Your task to perform on an android device: Add "usb-c to usb-a" to the cart on bestbuy Image 0: 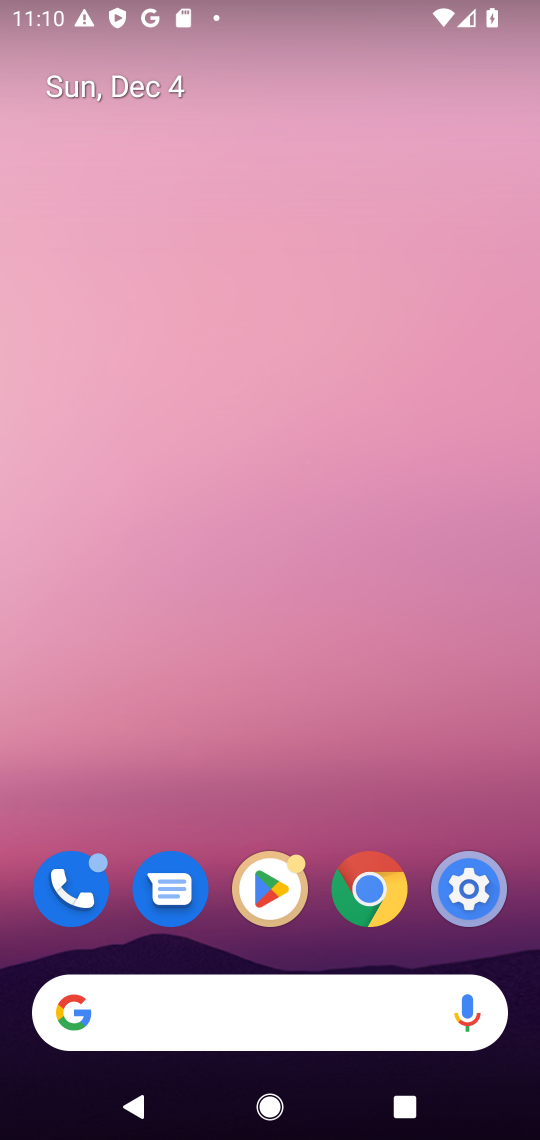
Step 0: click (379, 887)
Your task to perform on an android device: Add "usb-c to usb-a" to the cart on bestbuy Image 1: 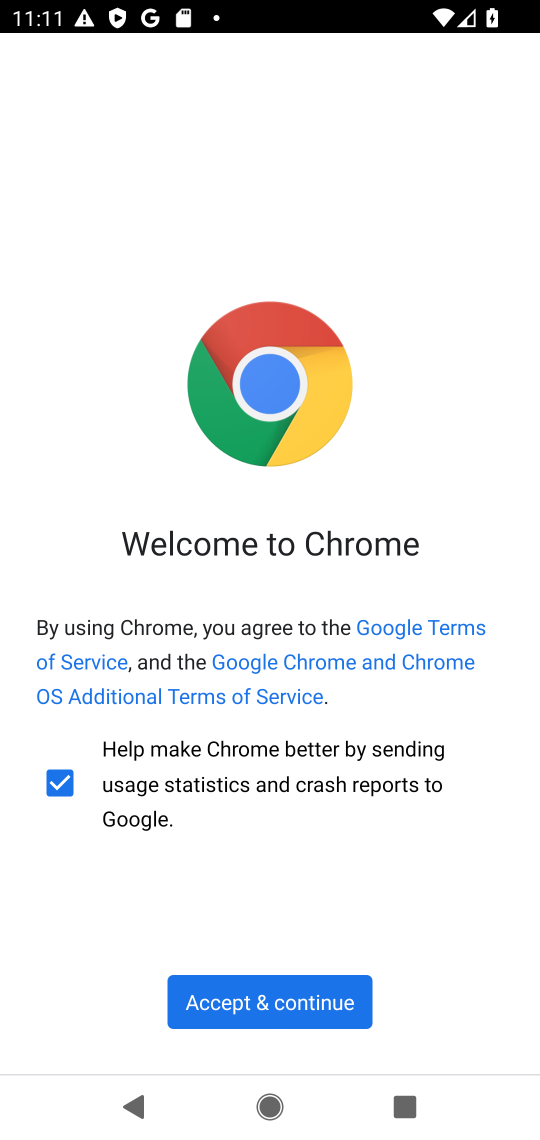
Step 1: click (272, 1006)
Your task to perform on an android device: Add "usb-c to usb-a" to the cart on bestbuy Image 2: 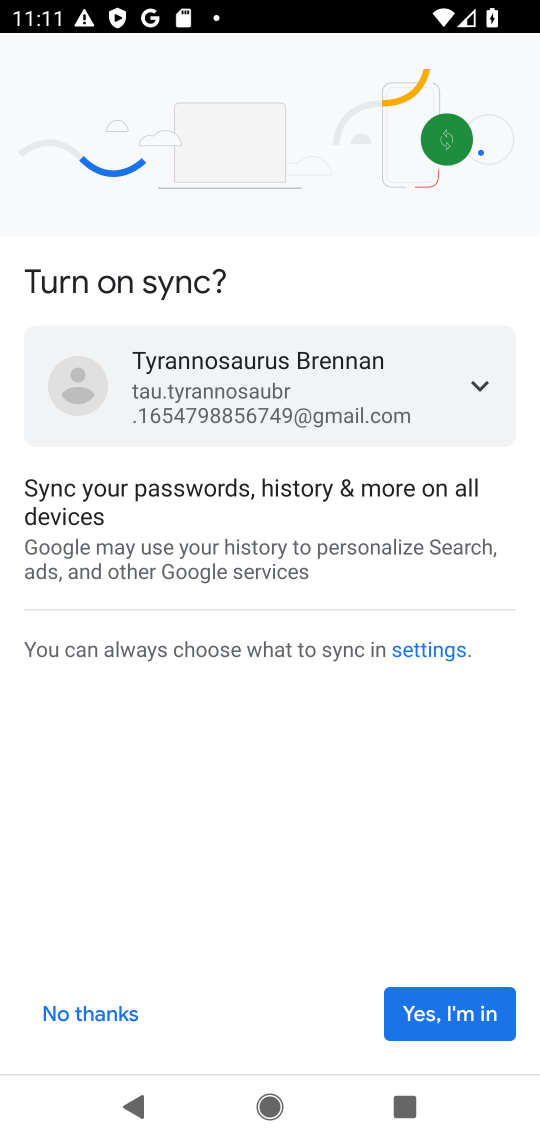
Step 2: click (447, 1015)
Your task to perform on an android device: Add "usb-c to usb-a" to the cart on bestbuy Image 3: 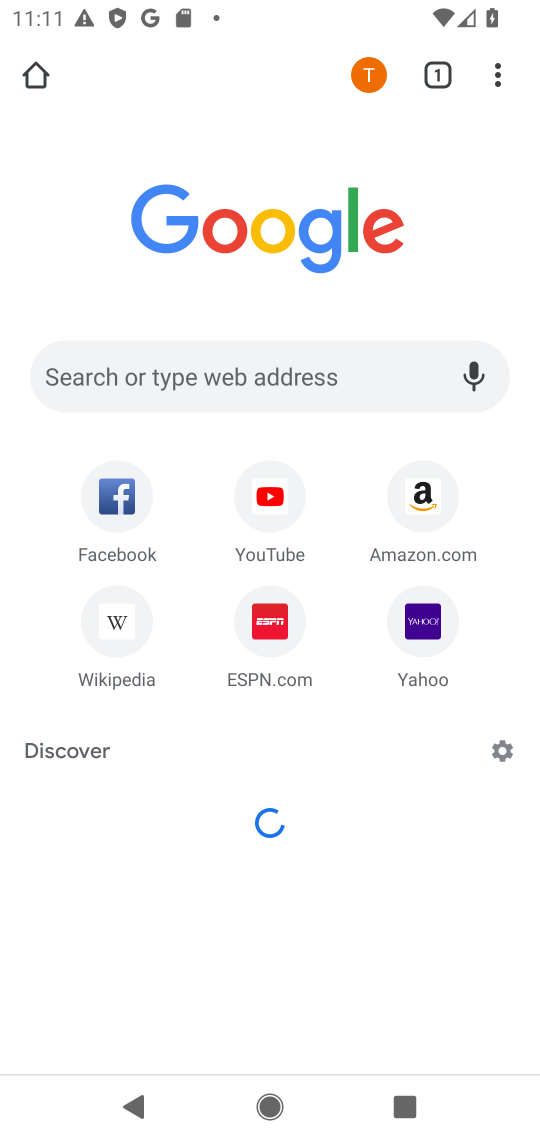
Step 3: click (346, 378)
Your task to perform on an android device: Add "usb-c to usb-a" to the cart on bestbuy Image 4: 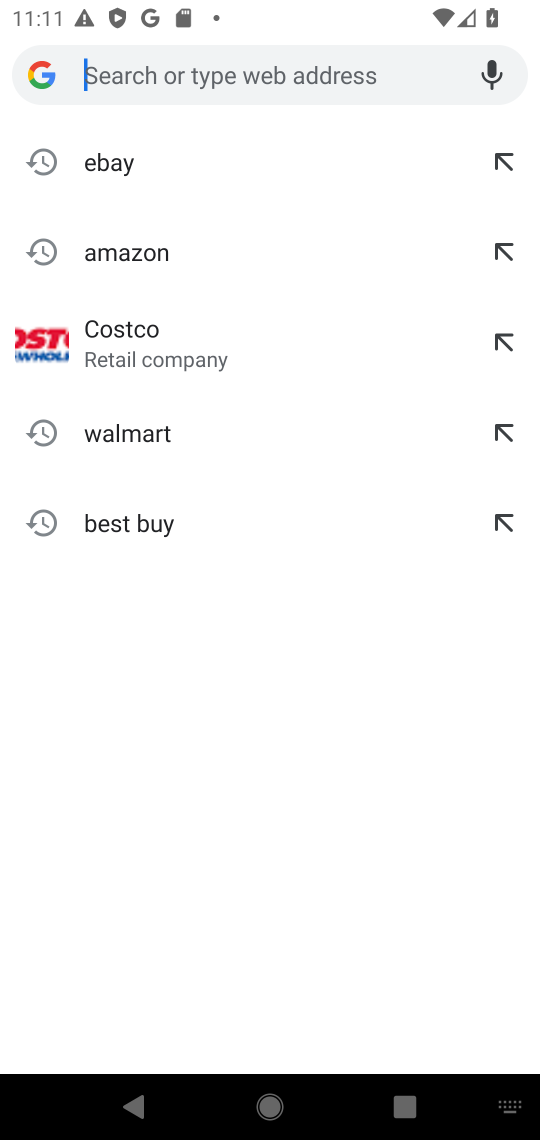
Step 4: type "bestbuy"
Your task to perform on an android device: Add "usb-c to usb-a" to the cart on bestbuy Image 5: 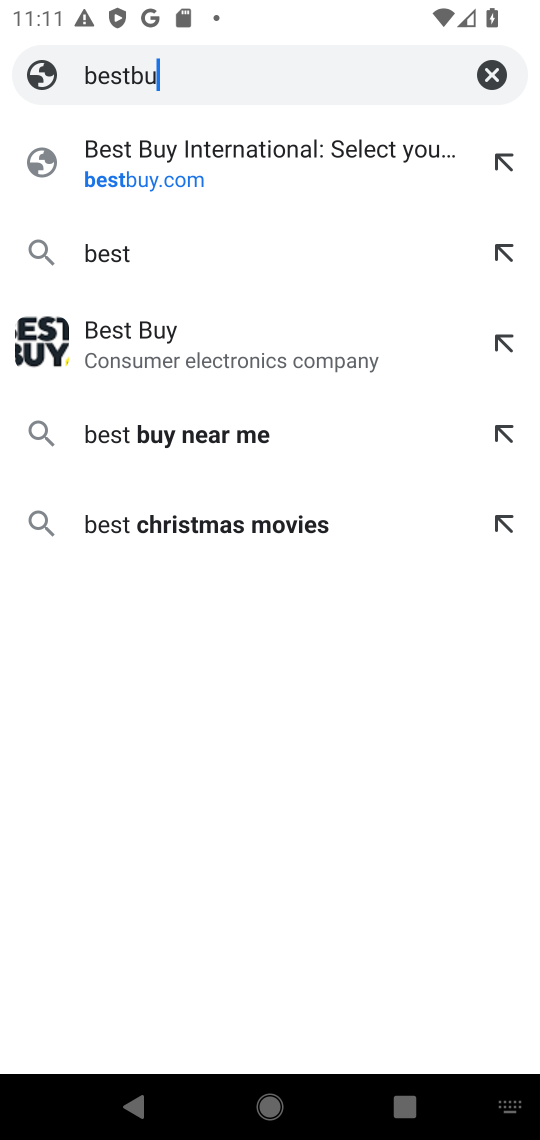
Step 5: press enter
Your task to perform on an android device: Add "usb-c to usb-a" to the cart on bestbuy Image 6: 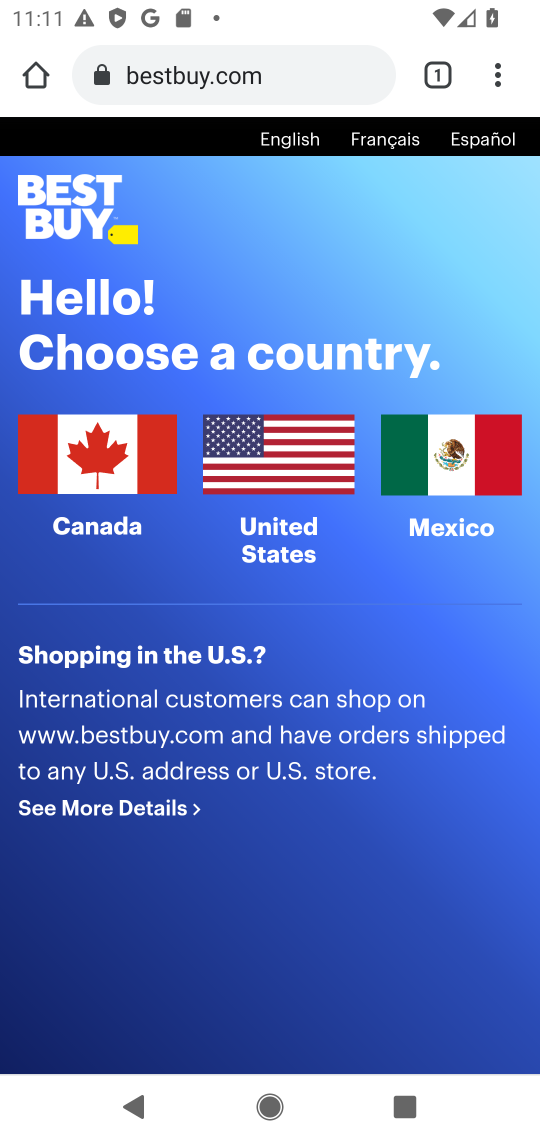
Step 6: click (271, 472)
Your task to perform on an android device: Add "usb-c to usb-a" to the cart on bestbuy Image 7: 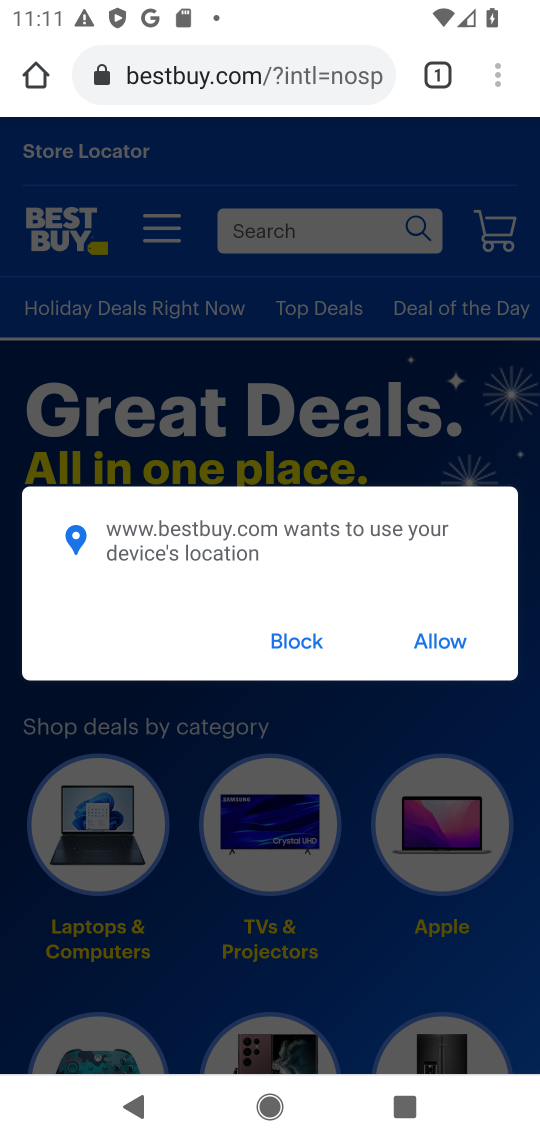
Step 7: click (291, 639)
Your task to perform on an android device: Add "usb-c to usb-a" to the cart on bestbuy Image 8: 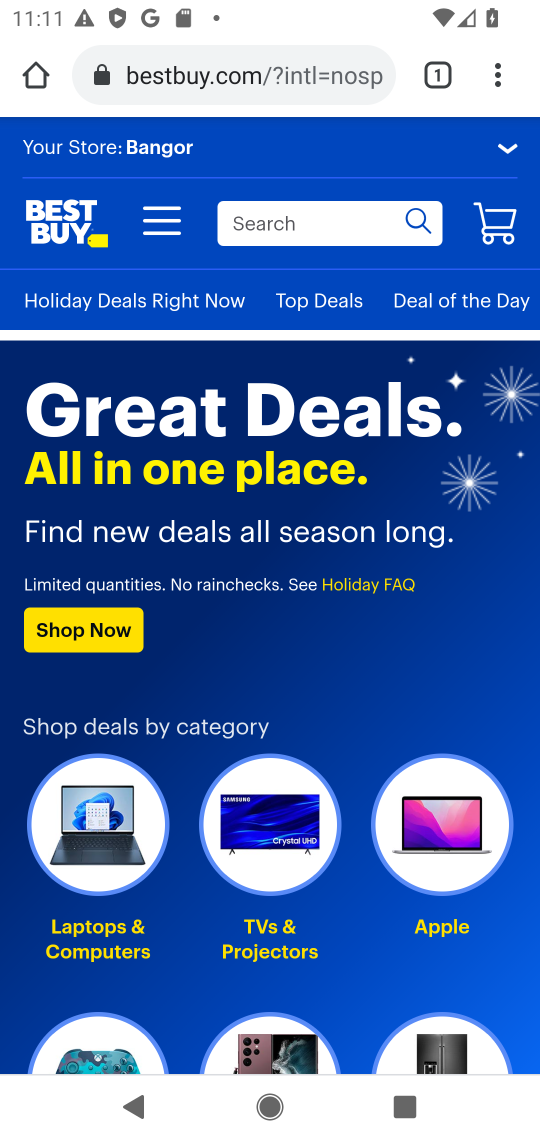
Step 8: click (393, 228)
Your task to perform on an android device: Add "usb-c to usb-a" to the cart on bestbuy Image 9: 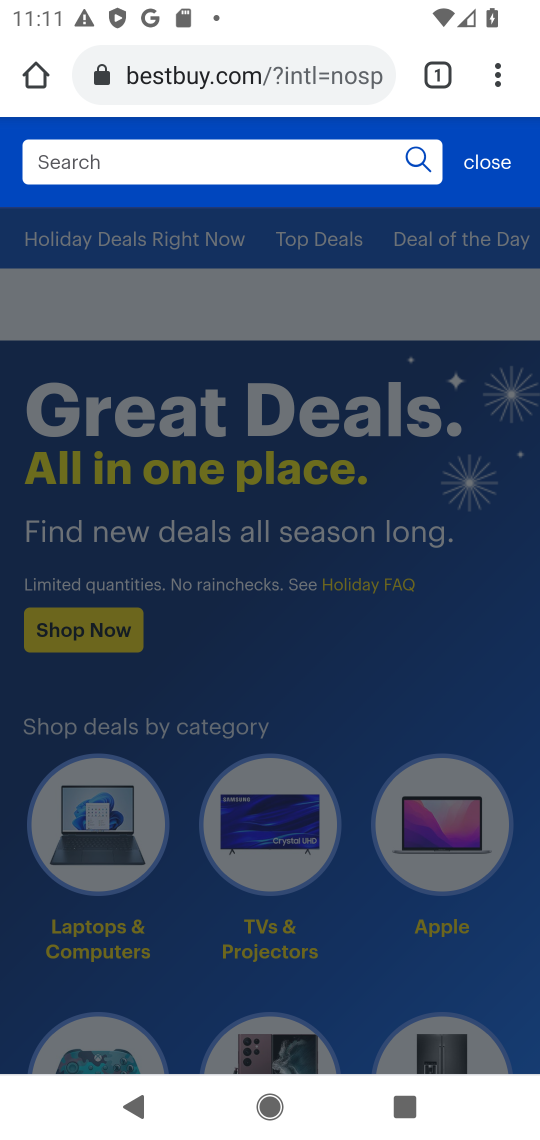
Step 9: type "usb-c to usb-a"
Your task to perform on an android device: Add "usb-c to usb-a" to the cart on bestbuy Image 10: 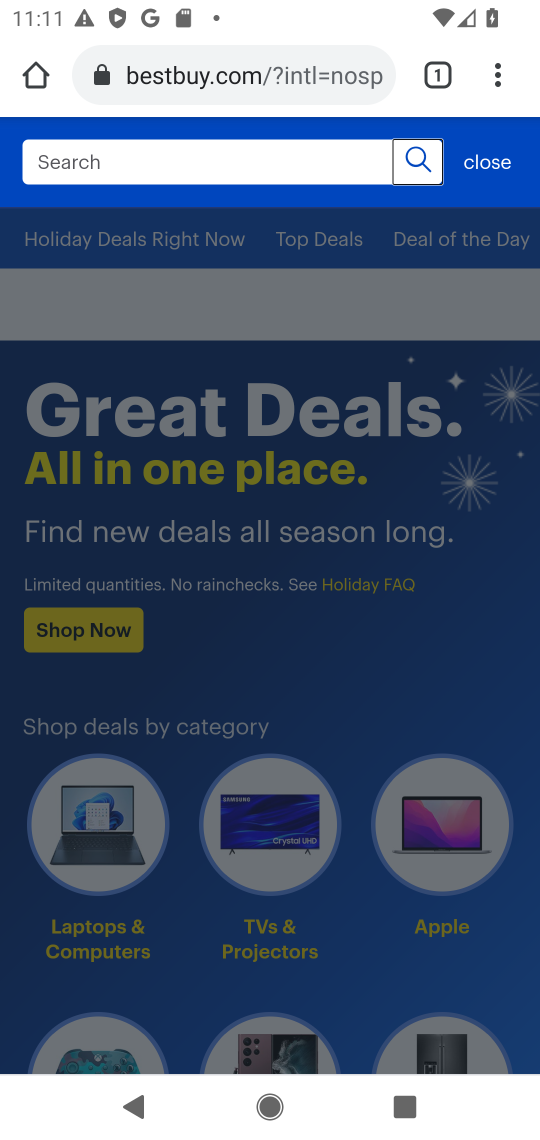
Step 10: press enter
Your task to perform on an android device: Add "usb-c to usb-a" to the cart on bestbuy Image 11: 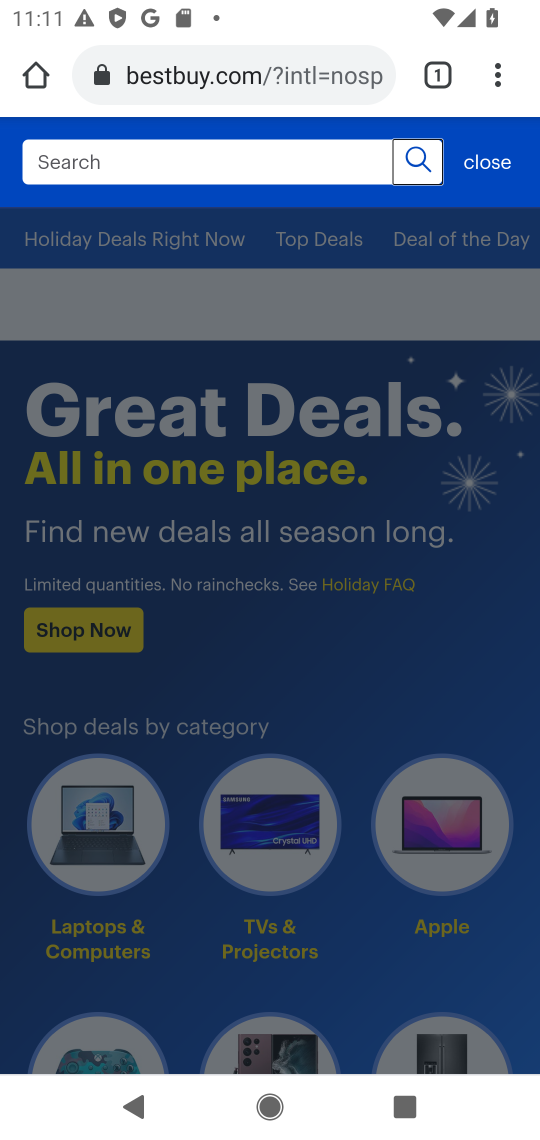
Step 11: click (352, 145)
Your task to perform on an android device: Add "usb-c to usb-a" to the cart on bestbuy Image 12: 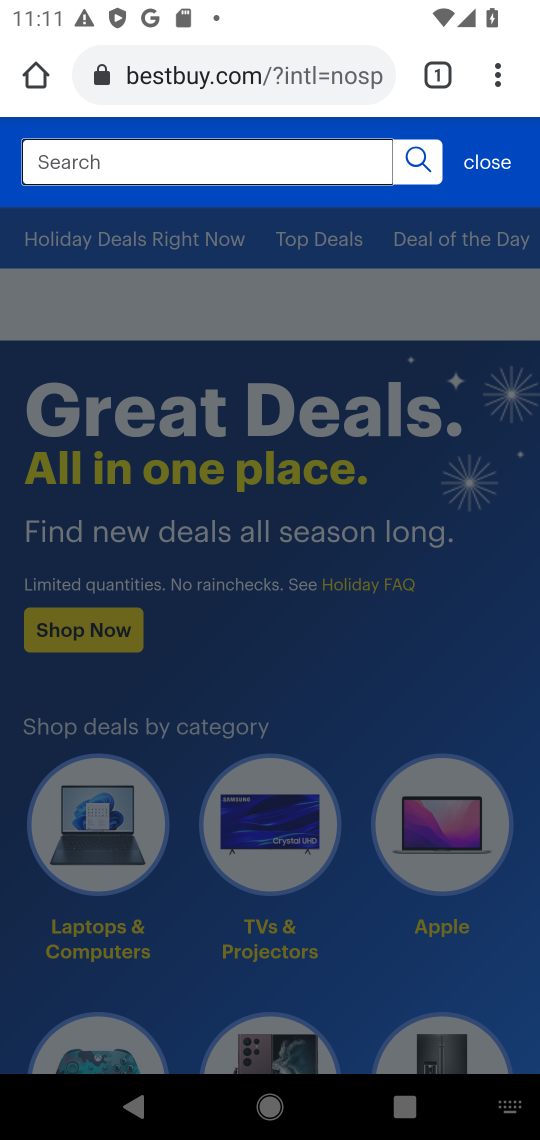
Step 12: press enter
Your task to perform on an android device: Add "usb-c to usb-a" to the cart on bestbuy Image 13: 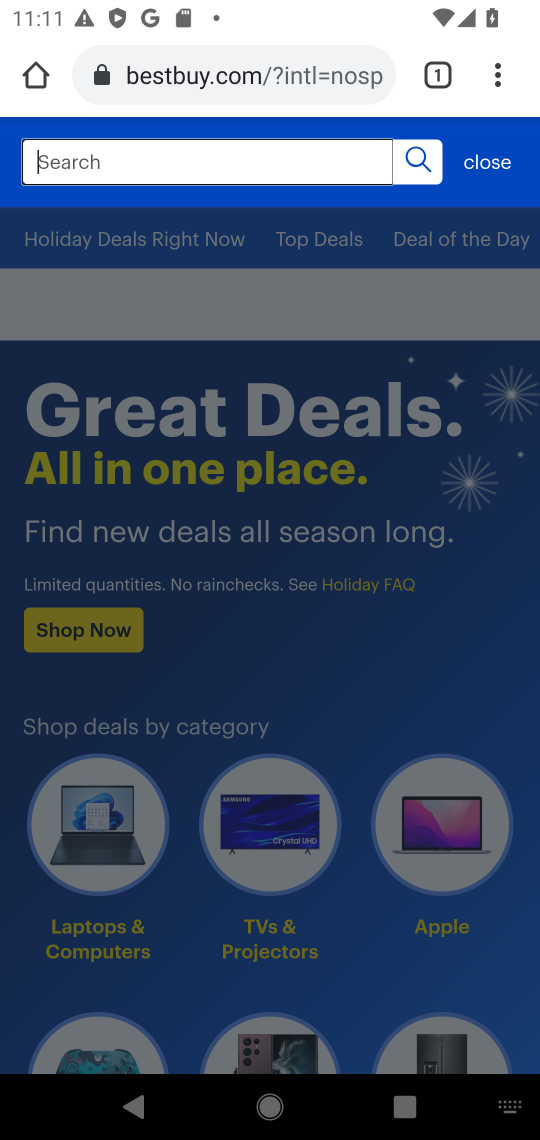
Step 13: type "usb-c to usb-a"
Your task to perform on an android device: Add "usb-c to usb-a" to the cart on bestbuy Image 14: 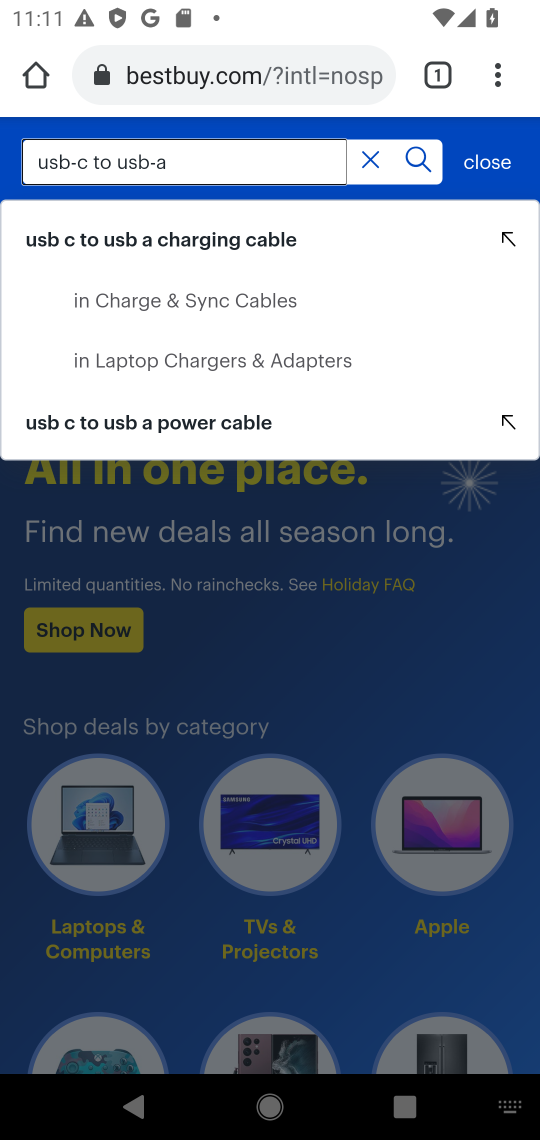
Step 14: click (182, 234)
Your task to perform on an android device: Add "usb-c to usb-a" to the cart on bestbuy Image 15: 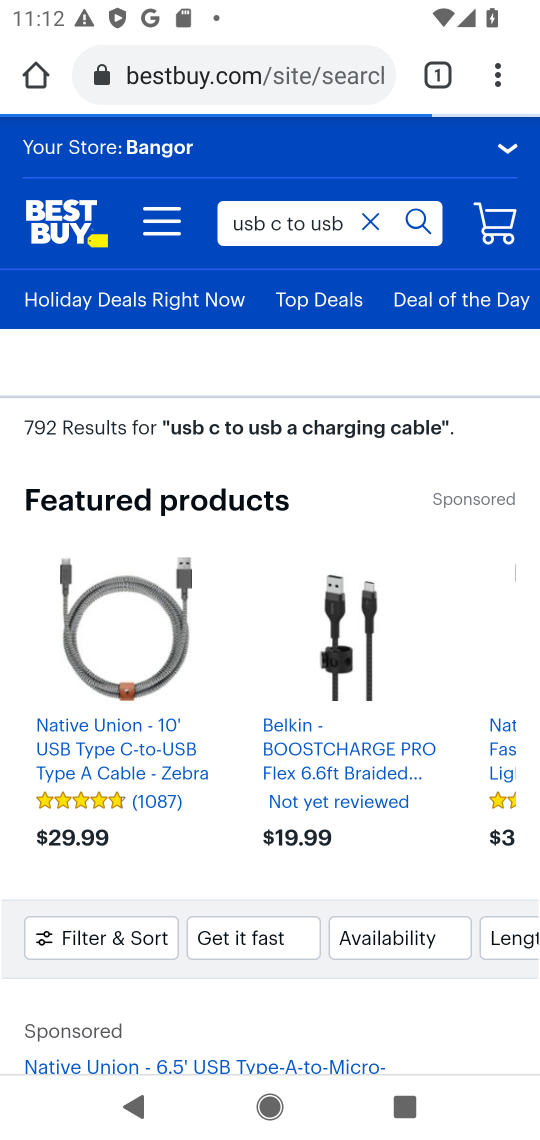
Step 15: drag from (405, 744) to (390, 275)
Your task to perform on an android device: Add "usb-c to usb-a" to the cart on bestbuy Image 16: 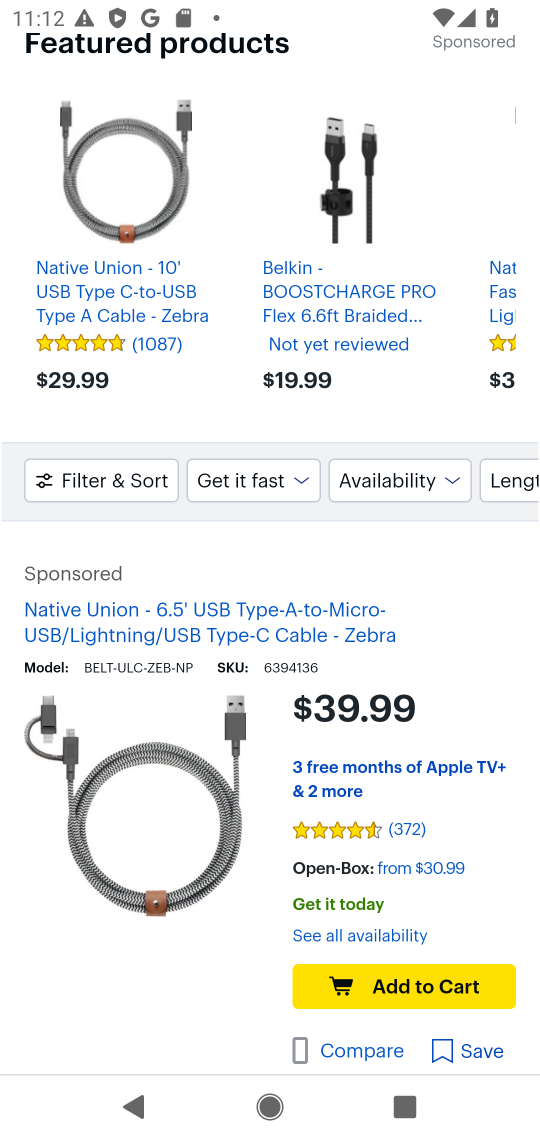
Step 16: drag from (218, 862) to (313, 465)
Your task to perform on an android device: Add "usb-c to usb-a" to the cart on bestbuy Image 17: 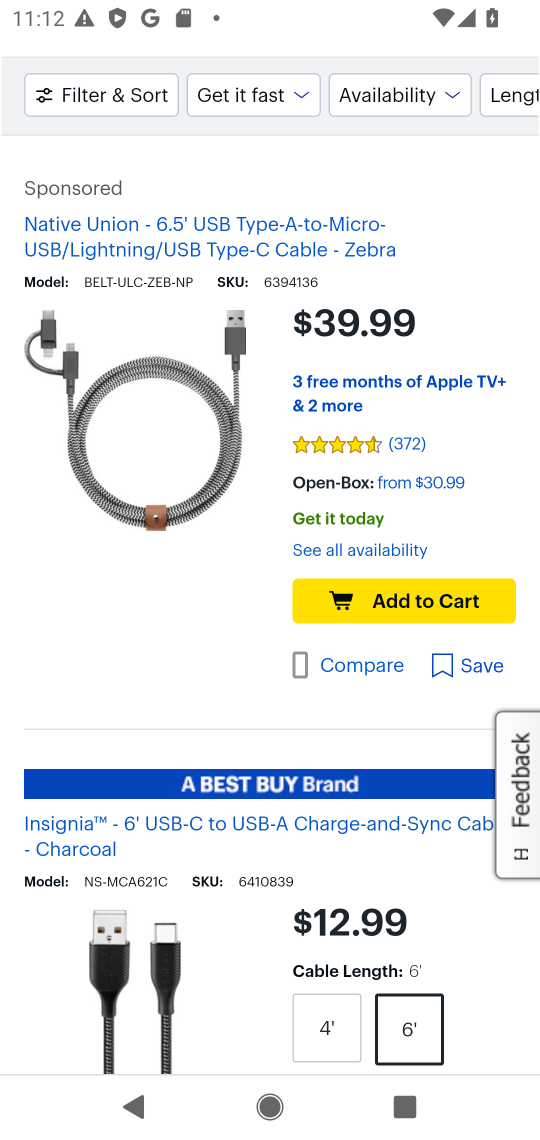
Step 17: click (160, 998)
Your task to perform on an android device: Add "usb-c to usb-a" to the cart on bestbuy Image 18: 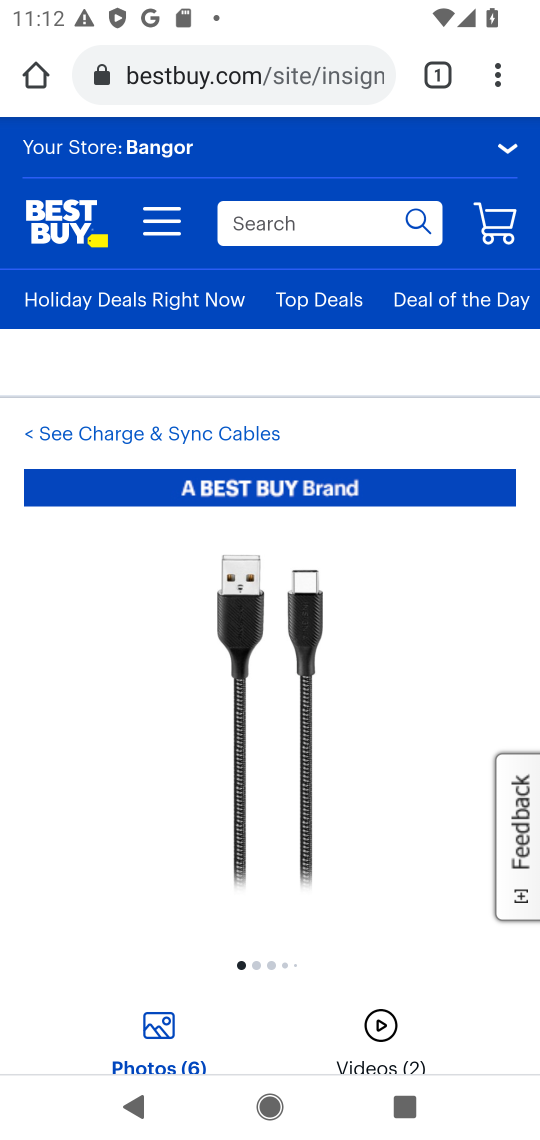
Step 18: drag from (363, 865) to (274, 181)
Your task to perform on an android device: Add "usb-c to usb-a" to the cart on bestbuy Image 19: 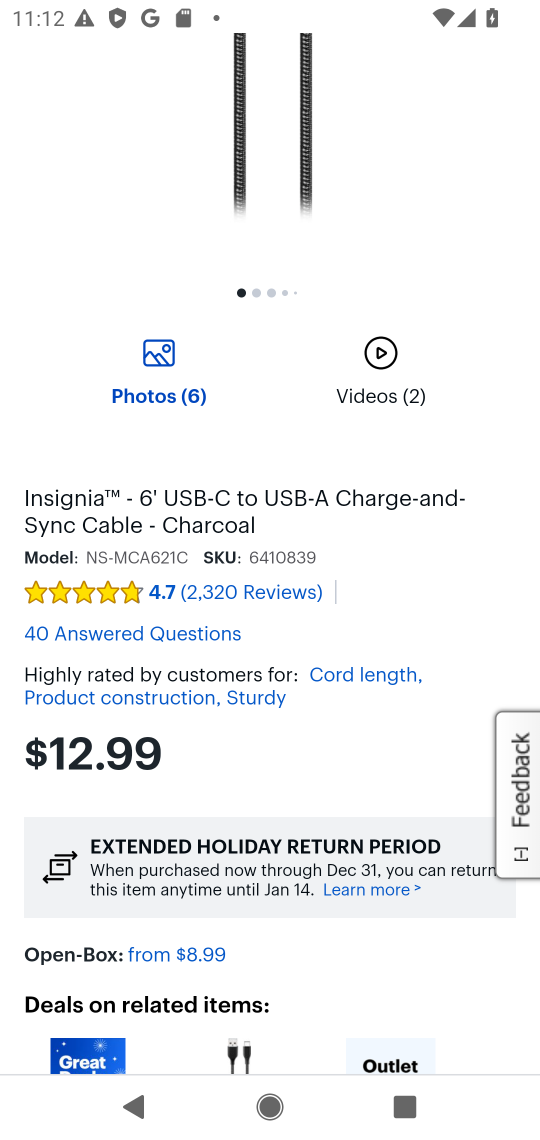
Step 19: drag from (368, 735) to (293, 202)
Your task to perform on an android device: Add "usb-c to usb-a" to the cart on bestbuy Image 20: 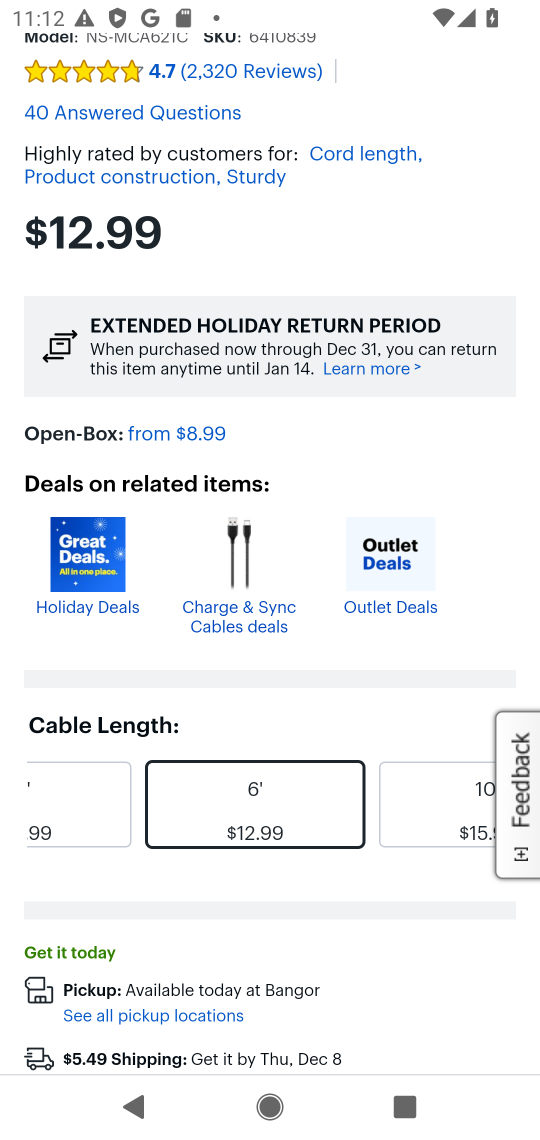
Step 20: drag from (351, 933) to (263, 344)
Your task to perform on an android device: Add "usb-c to usb-a" to the cart on bestbuy Image 21: 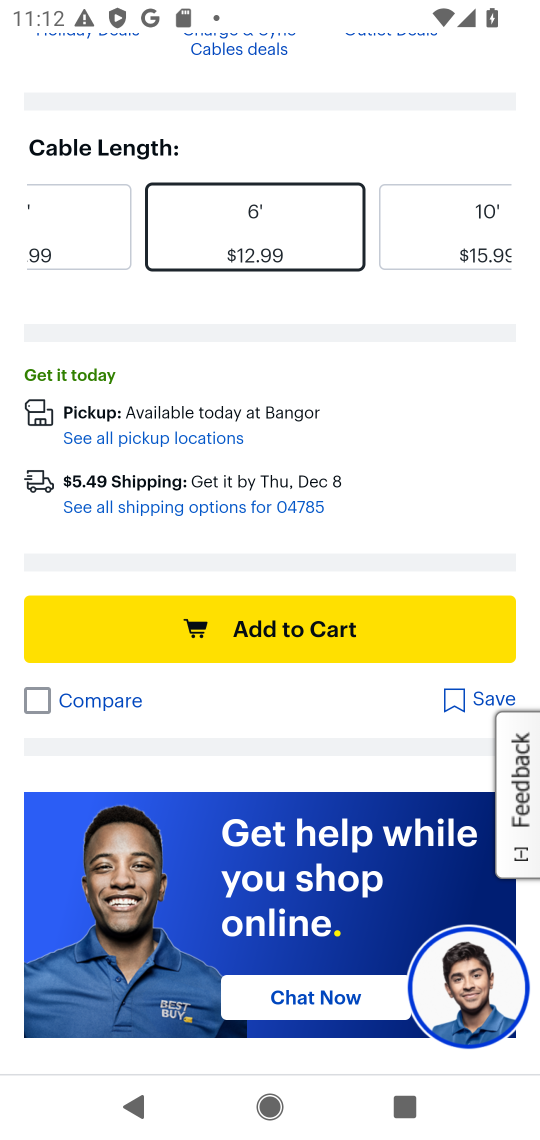
Step 21: click (281, 627)
Your task to perform on an android device: Add "usb-c to usb-a" to the cart on bestbuy Image 22: 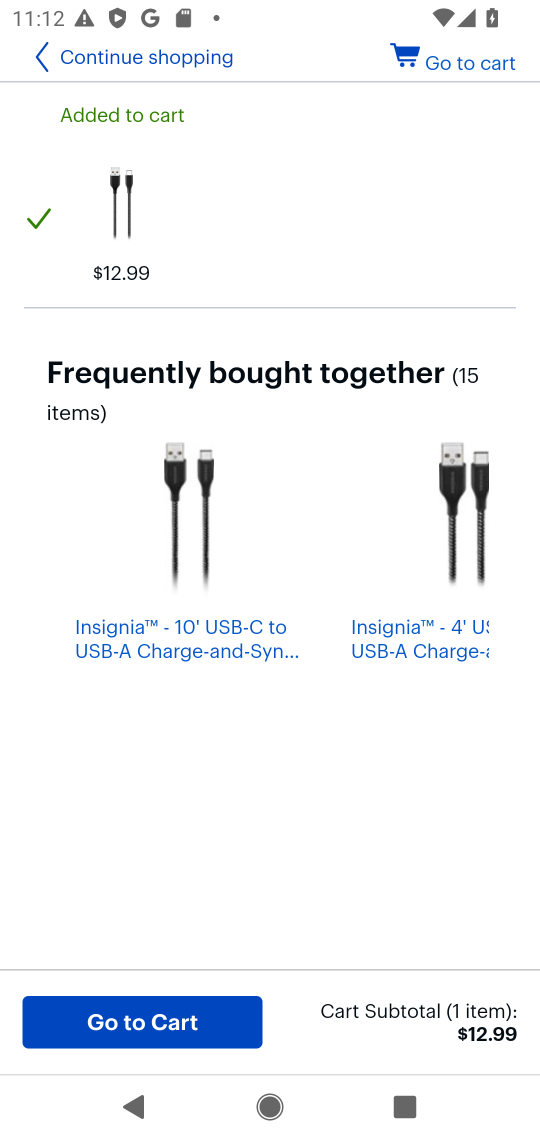
Step 22: click (178, 1025)
Your task to perform on an android device: Add "usb-c to usb-a" to the cart on bestbuy Image 23: 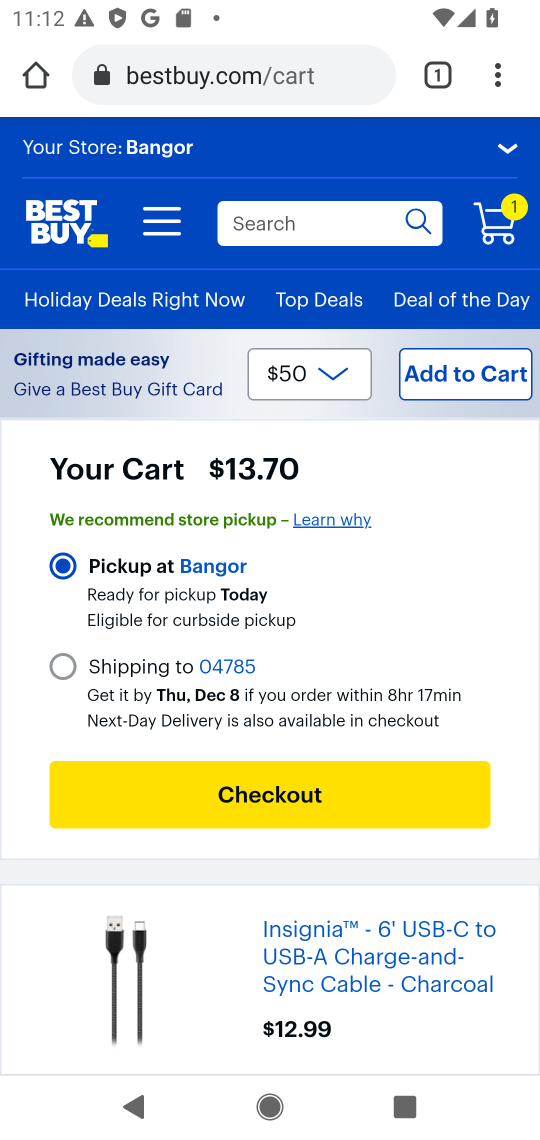
Step 23: task complete